Your task to perform on an android device: refresh tabs in the chrome app Image 0: 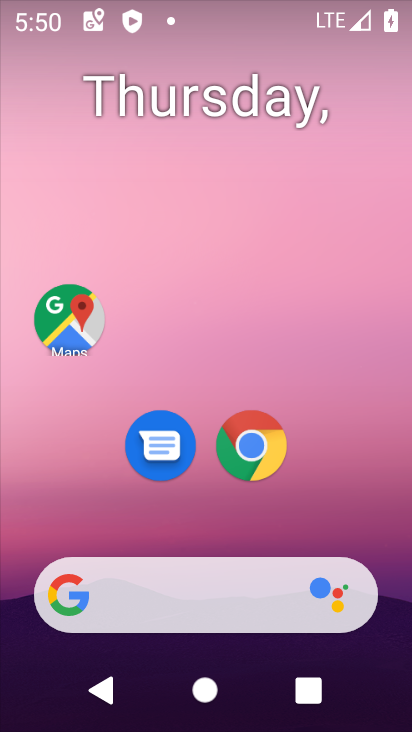
Step 0: click (247, 438)
Your task to perform on an android device: refresh tabs in the chrome app Image 1: 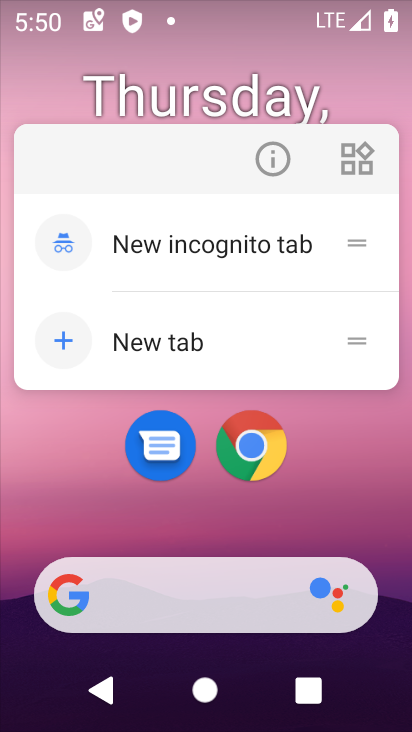
Step 1: click (259, 449)
Your task to perform on an android device: refresh tabs in the chrome app Image 2: 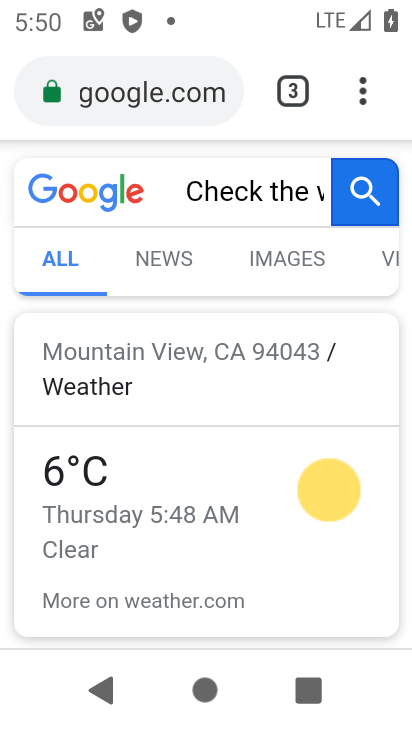
Step 2: task complete